Your task to perform on an android device: Open settings Image 0: 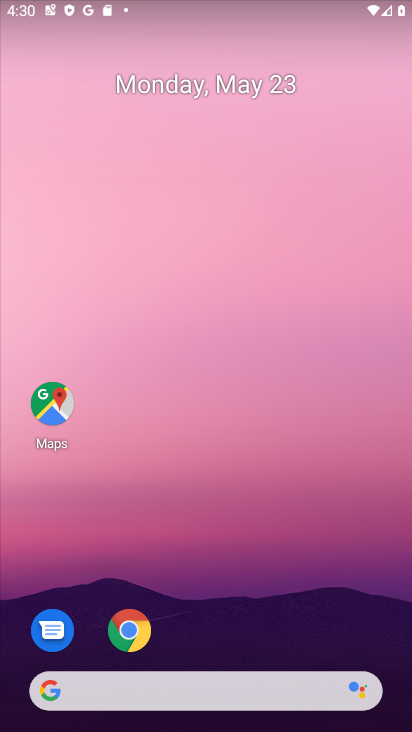
Step 0: drag from (219, 648) to (220, 74)
Your task to perform on an android device: Open settings Image 1: 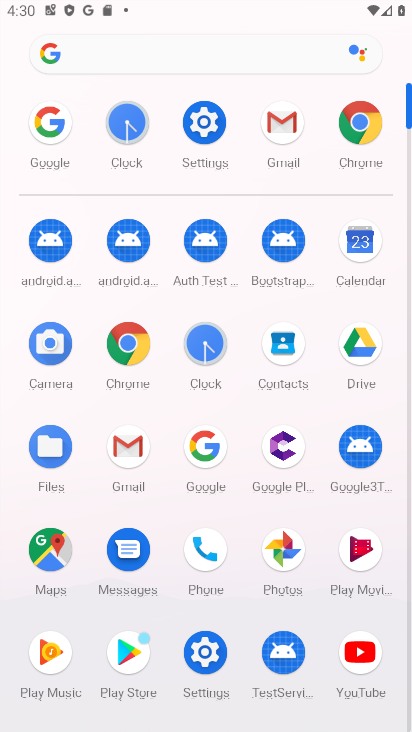
Step 1: click (202, 113)
Your task to perform on an android device: Open settings Image 2: 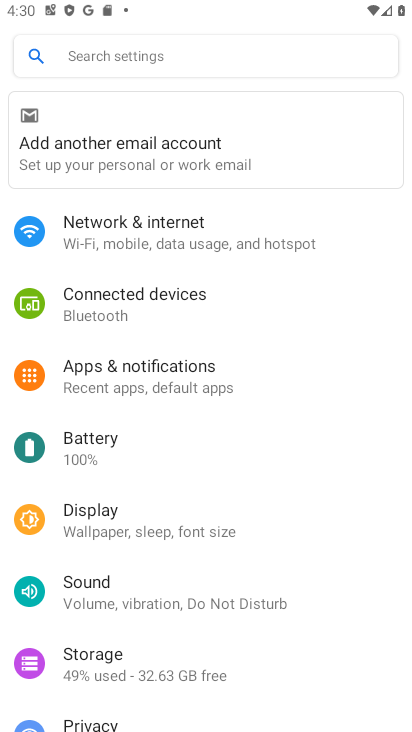
Step 2: task complete